Your task to perform on an android device: Open the Play Movies app and select the watchlist tab. Image 0: 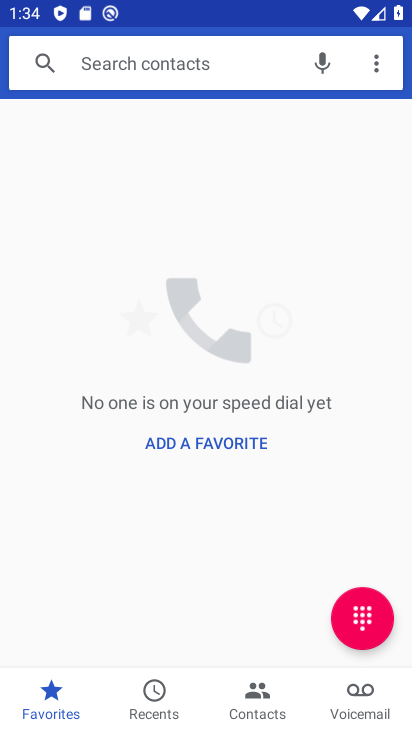
Step 0: press home button
Your task to perform on an android device: Open the Play Movies app and select the watchlist tab. Image 1: 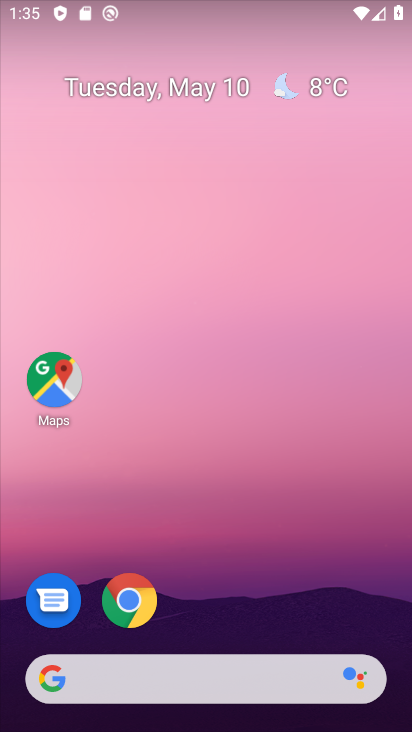
Step 1: drag from (227, 613) to (218, 78)
Your task to perform on an android device: Open the Play Movies app and select the watchlist tab. Image 2: 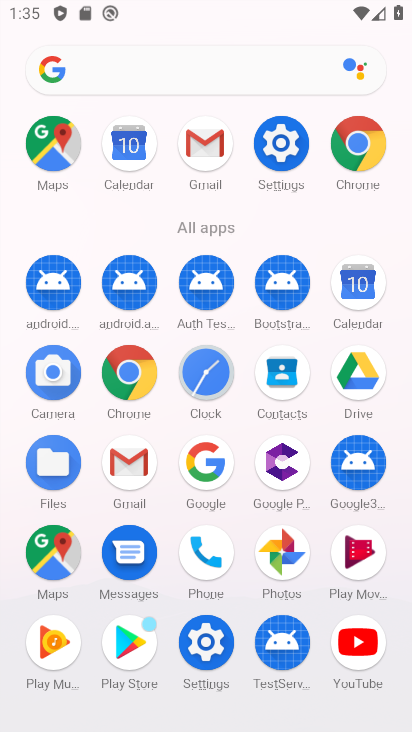
Step 2: click (357, 552)
Your task to perform on an android device: Open the Play Movies app and select the watchlist tab. Image 3: 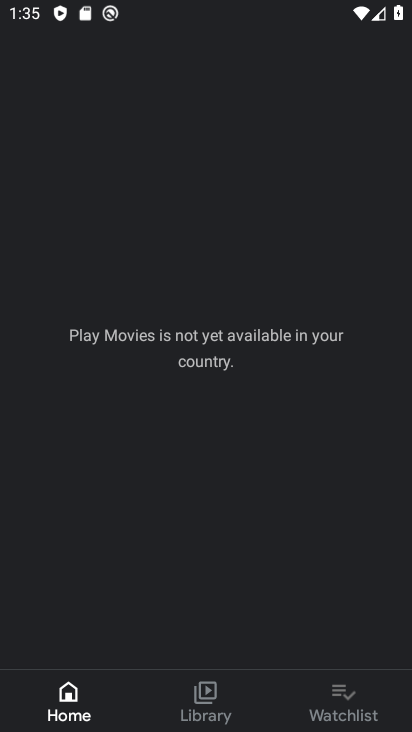
Step 3: click (335, 691)
Your task to perform on an android device: Open the Play Movies app and select the watchlist tab. Image 4: 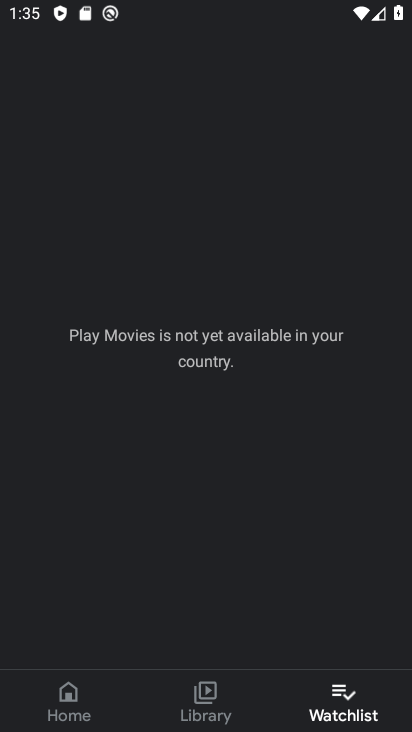
Step 4: task complete